Your task to perform on an android device: check battery use Image 0: 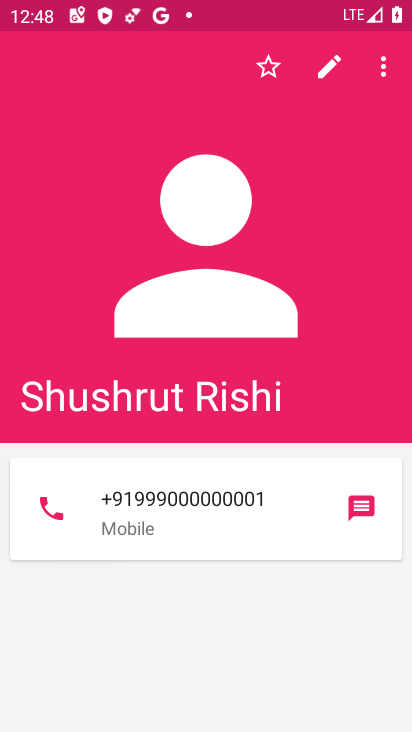
Step 0: press home button
Your task to perform on an android device: check battery use Image 1: 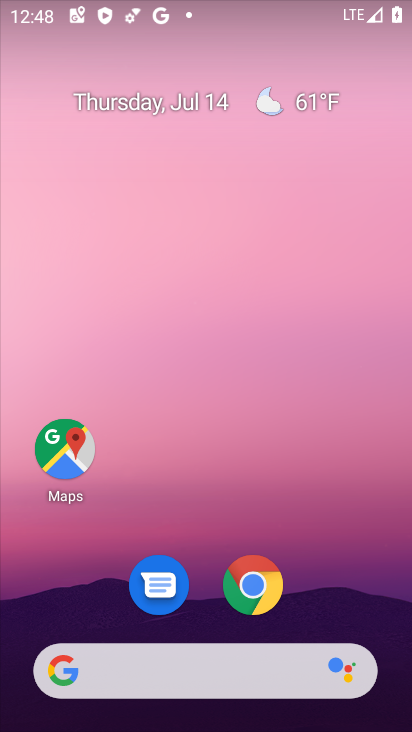
Step 1: drag from (334, 572) to (408, 75)
Your task to perform on an android device: check battery use Image 2: 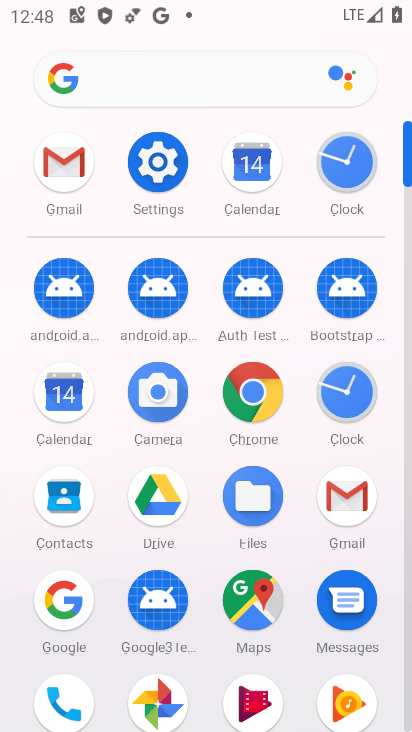
Step 2: click (153, 168)
Your task to perform on an android device: check battery use Image 3: 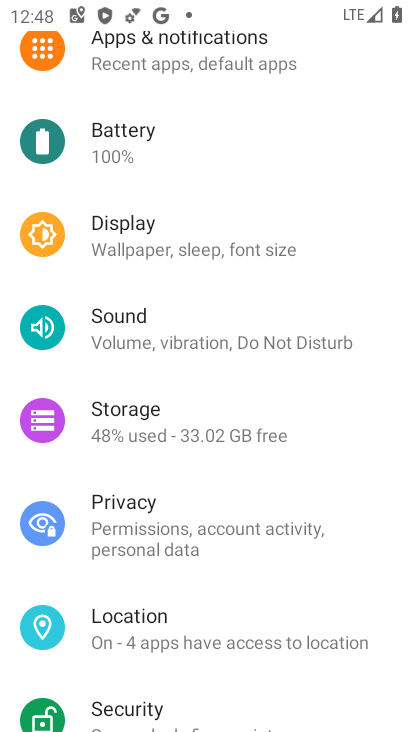
Step 3: click (156, 145)
Your task to perform on an android device: check battery use Image 4: 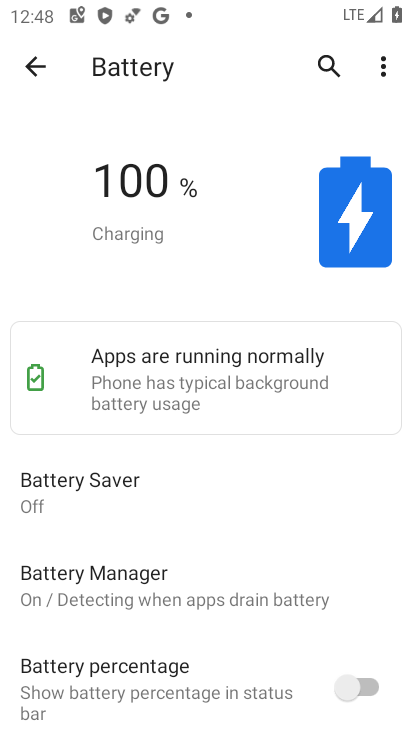
Step 4: click (377, 60)
Your task to perform on an android device: check battery use Image 5: 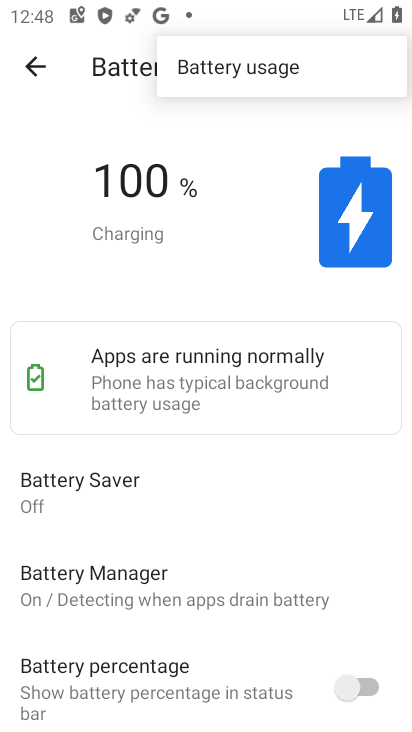
Step 5: click (295, 60)
Your task to perform on an android device: check battery use Image 6: 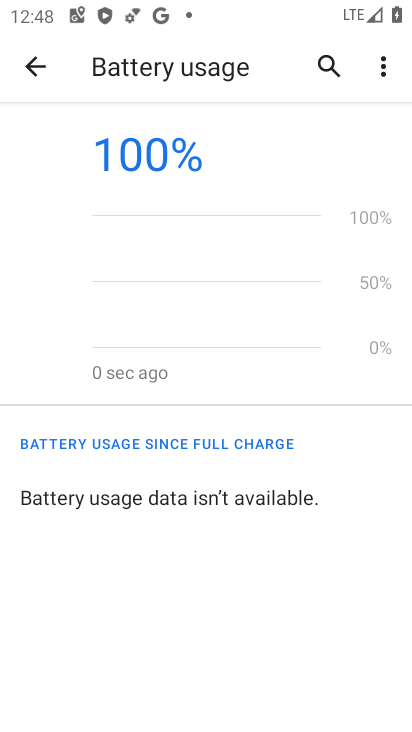
Step 6: task complete